Your task to perform on an android device: Go to wifi settings Image 0: 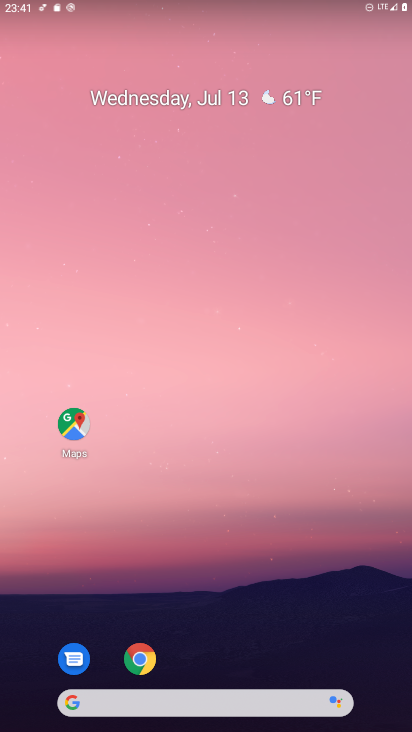
Step 0: drag from (370, 628) to (303, 100)
Your task to perform on an android device: Go to wifi settings Image 1: 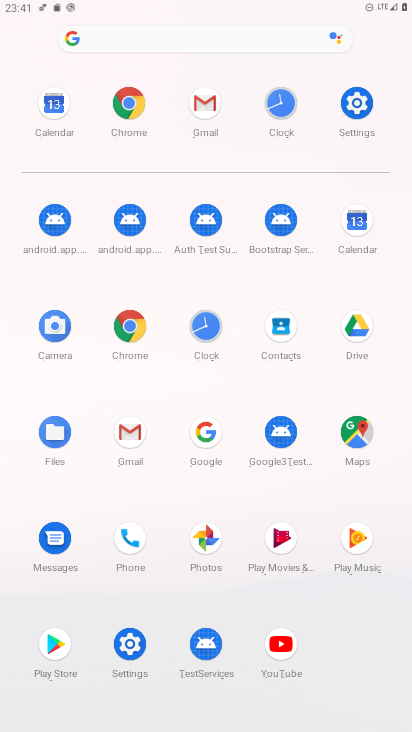
Step 1: click (127, 642)
Your task to perform on an android device: Go to wifi settings Image 2: 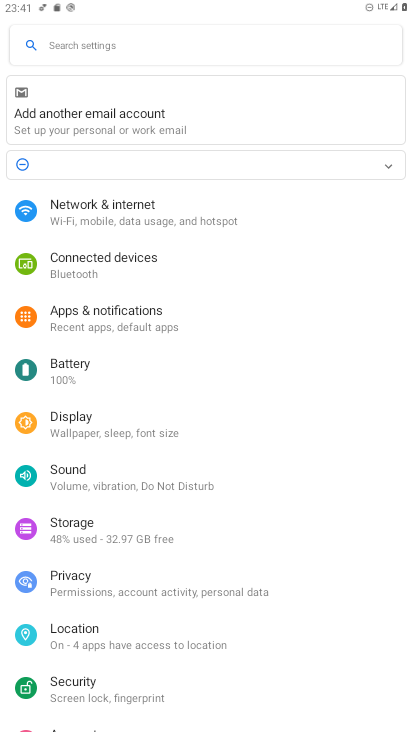
Step 2: click (95, 203)
Your task to perform on an android device: Go to wifi settings Image 3: 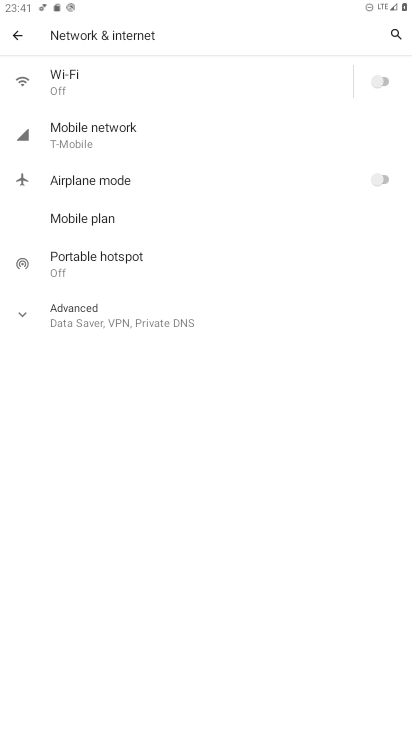
Step 3: click (69, 81)
Your task to perform on an android device: Go to wifi settings Image 4: 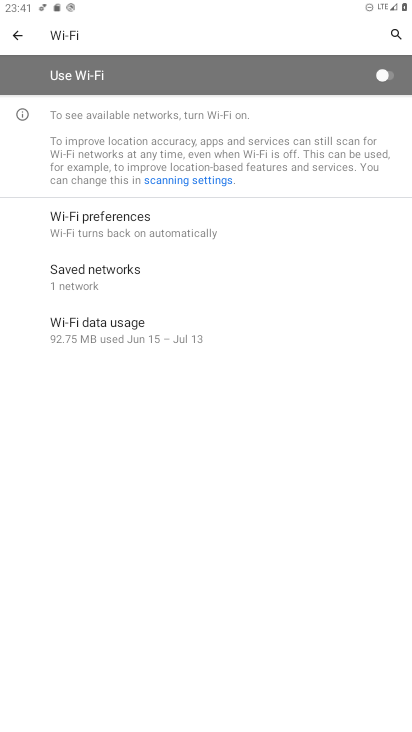
Step 4: task complete